Your task to perform on an android device: open the mobile data screen to see how much data has been used Image 0: 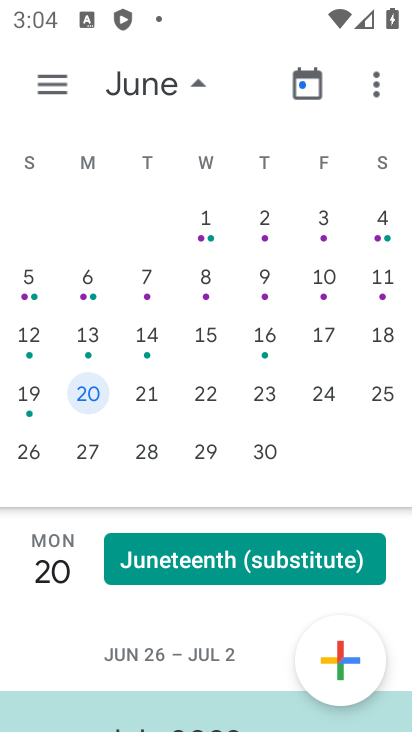
Step 0: press home button
Your task to perform on an android device: open the mobile data screen to see how much data has been used Image 1: 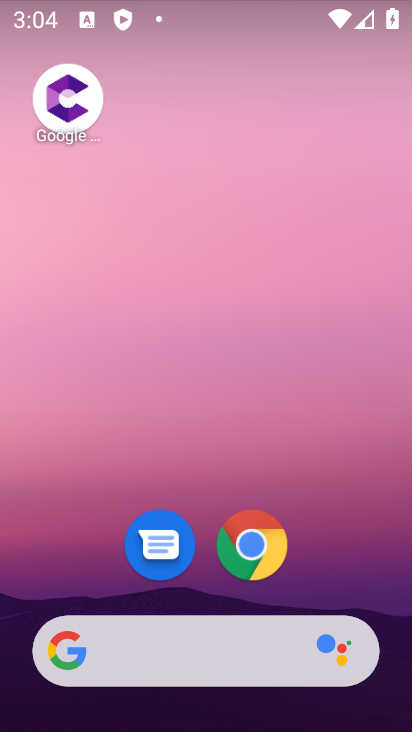
Step 1: drag from (187, 602) to (228, 186)
Your task to perform on an android device: open the mobile data screen to see how much data has been used Image 2: 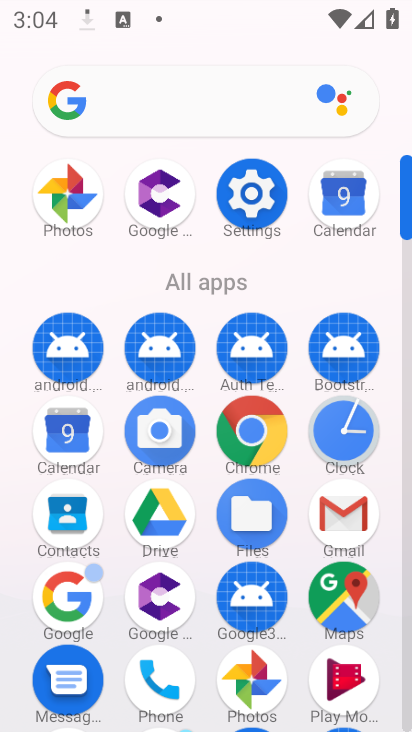
Step 2: click (232, 170)
Your task to perform on an android device: open the mobile data screen to see how much data has been used Image 3: 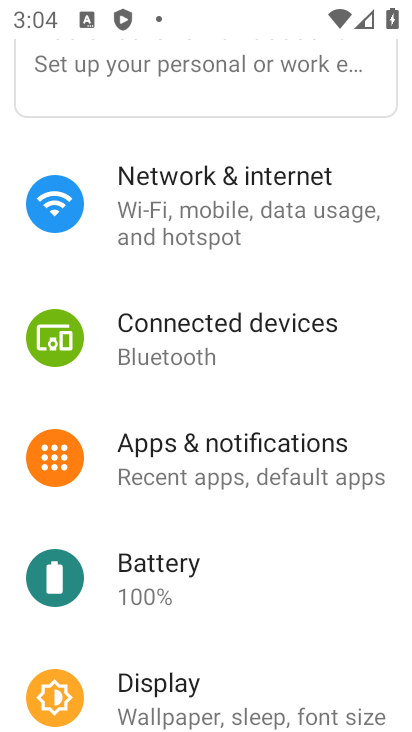
Step 3: click (221, 236)
Your task to perform on an android device: open the mobile data screen to see how much data has been used Image 4: 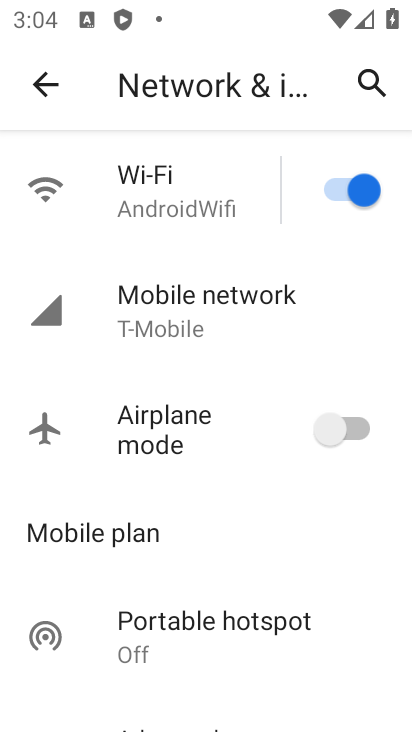
Step 4: click (221, 298)
Your task to perform on an android device: open the mobile data screen to see how much data has been used Image 5: 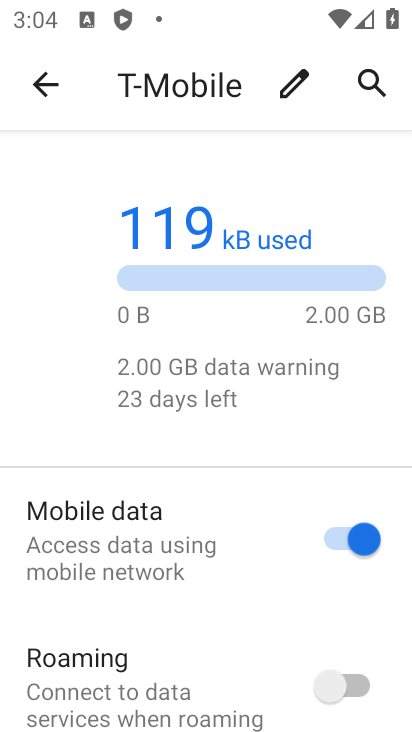
Step 5: drag from (230, 618) to (255, 441)
Your task to perform on an android device: open the mobile data screen to see how much data has been used Image 6: 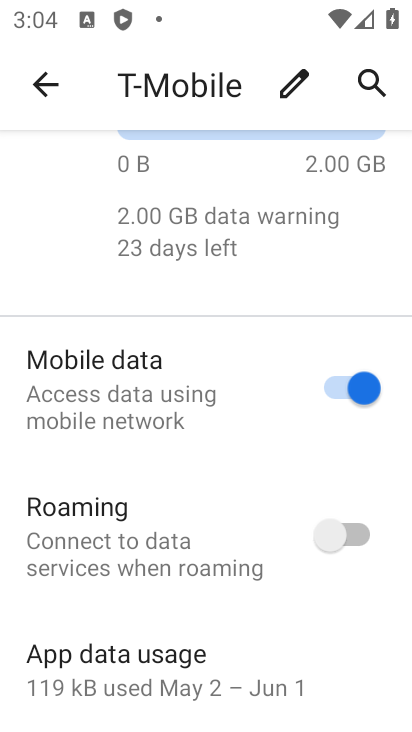
Step 6: drag from (200, 596) to (242, 368)
Your task to perform on an android device: open the mobile data screen to see how much data has been used Image 7: 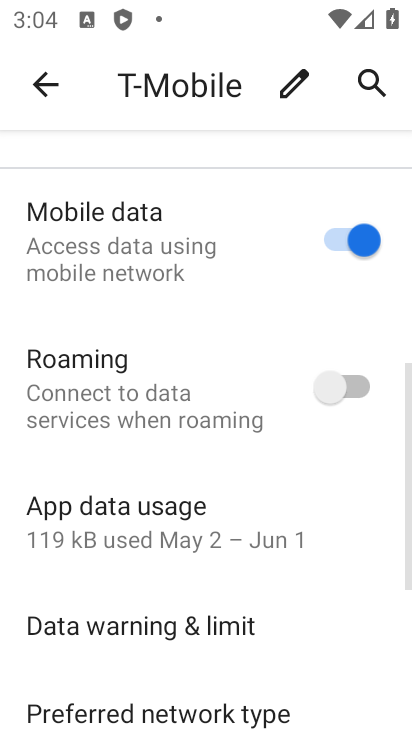
Step 7: click (199, 506)
Your task to perform on an android device: open the mobile data screen to see how much data has been used Image 8: 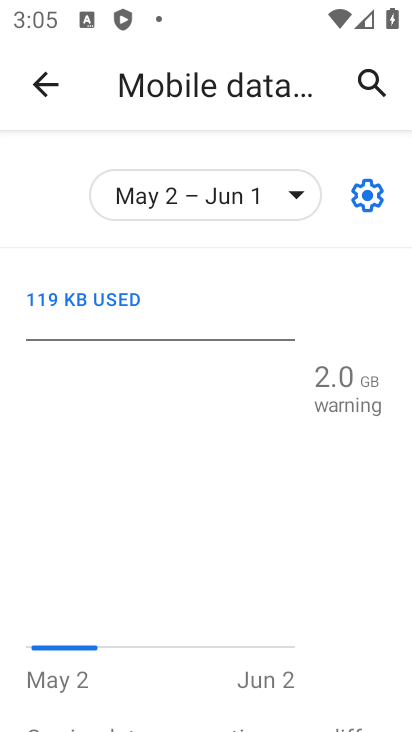
Step 8: task complete